Your task to perform on an android device: Go to eBay Image 0: 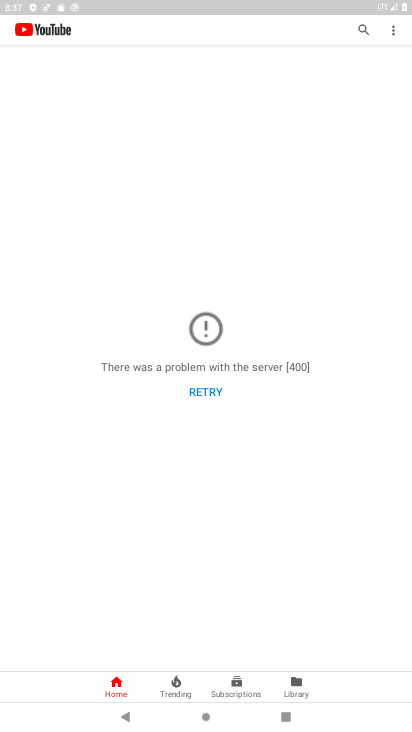
Step 0: press home button
Your task to perform on an android device: Go to eBay Image 1: 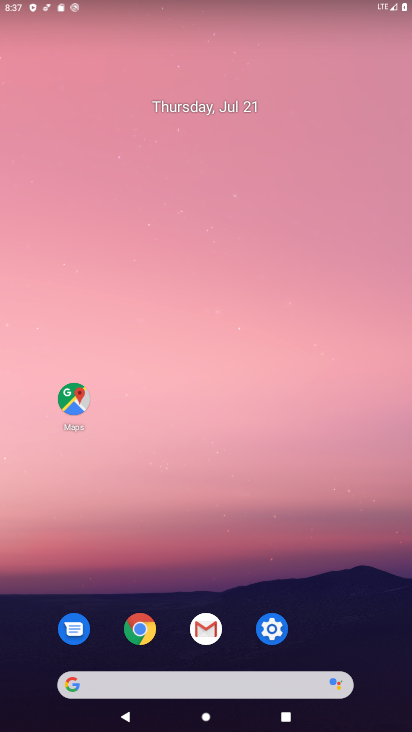
Step 1: click (152, 620)
Your task to perform on an android device: Go to eBay Image 2: 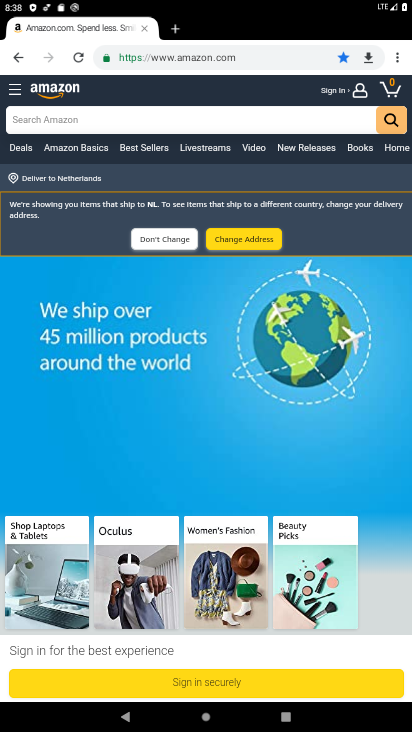
Step 2: click (178, 28)
Your task to perform on an android device: Go to eBay Image 3: 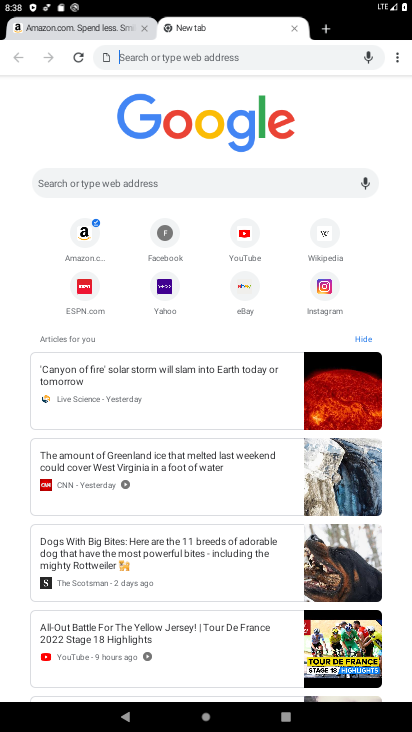
Step 3: click (240, 291)
Your task to perform on an android device: Go to eBay Image 4: 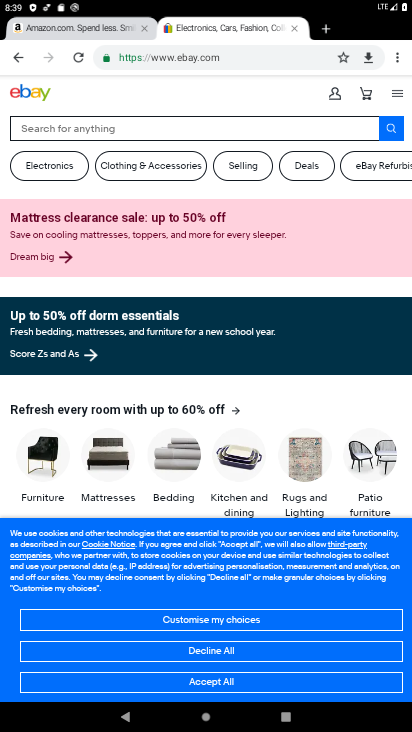
Step 4: task complete